Your task to perform on an android device: change the clock style Image 0: 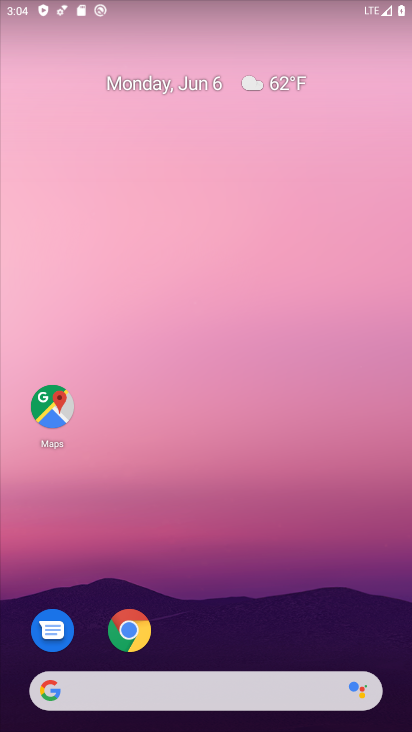
Step 0: press home button
Your task to perform on an android device: change the clock style Image 1: 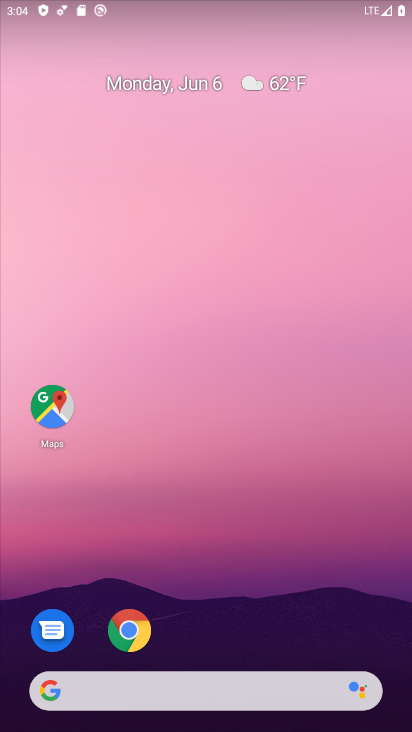
Step 1: drag from (246, 569) to (246, 79)
Your task to perform on an android device: change the clock style Image 2: 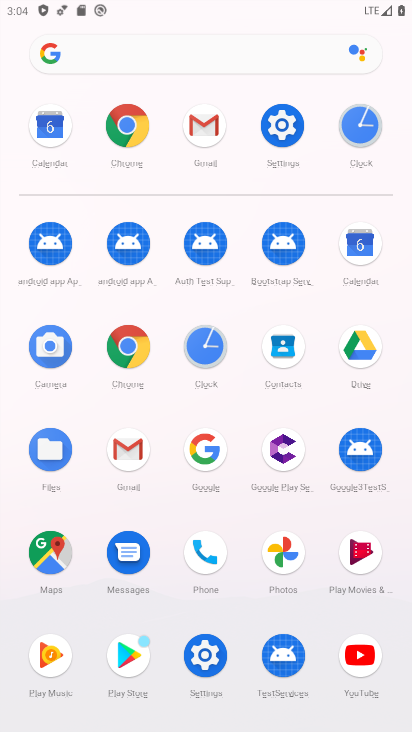
Step 2: click (198, 312)
Your task to perform on an android device: change the clock style Image 3: 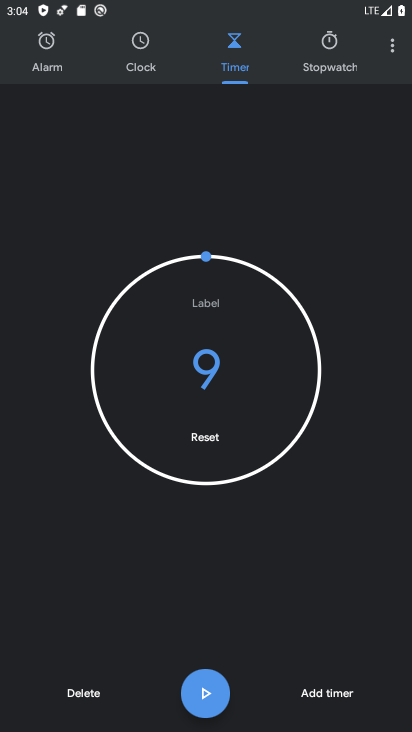
Step 3: click (387, 37)
Your task to perform on an android device: change the clock style Image 4: 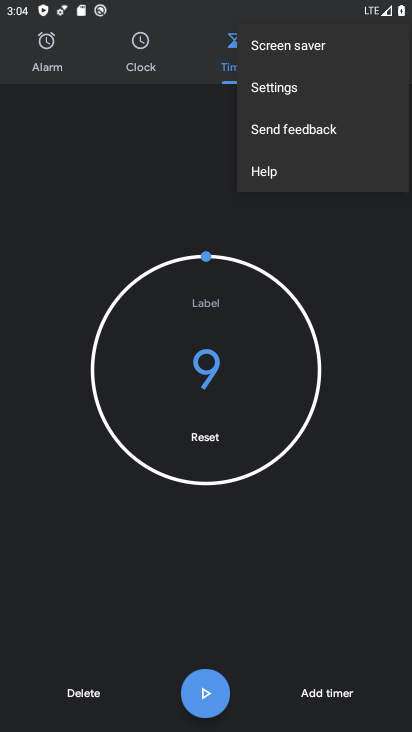
Step 4: click (311, 85)
Your task to perform on an android device: change the clock style Image 5: 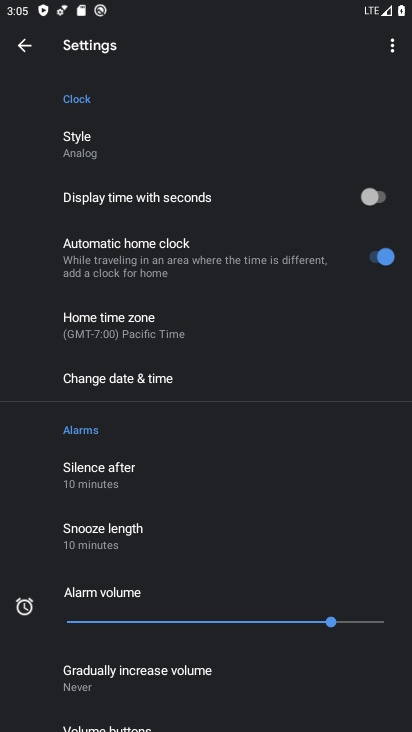
Step 5: click (80, 162)
Your task to perform on an android device: change the clock style Image 6: 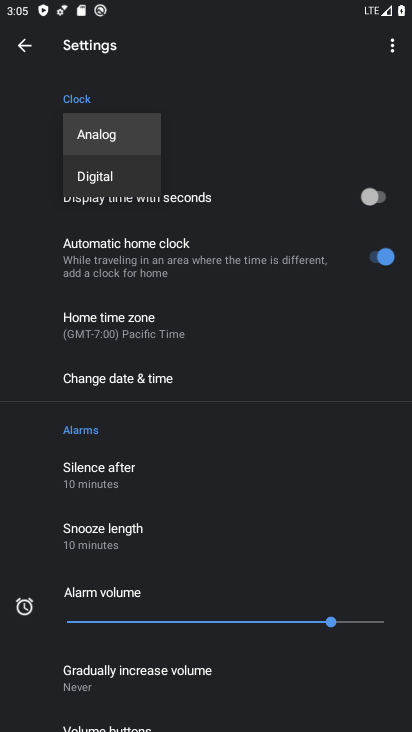
Step 6: click (143, 177)
Your task to perform on an android device: change the clock style Image 7: 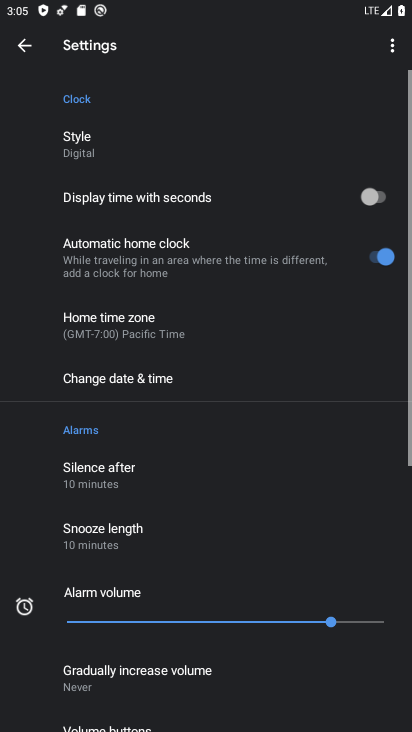
Step 7: task complete